Your task to perform on an android device: Go to Maps Image 0: 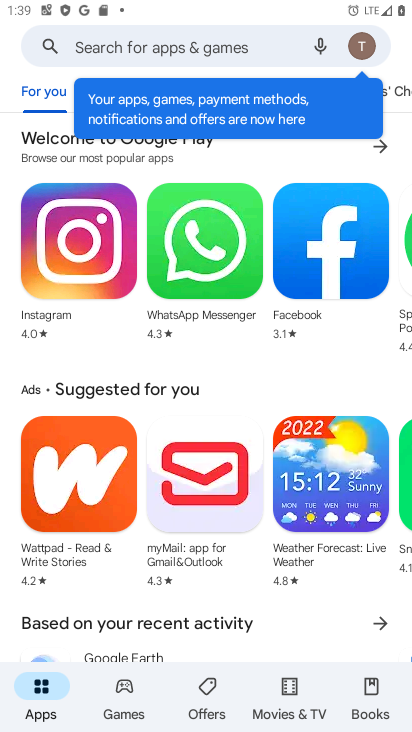
Step 0: press home button
Your task to perform on an android device: Go to Maps Image 1: 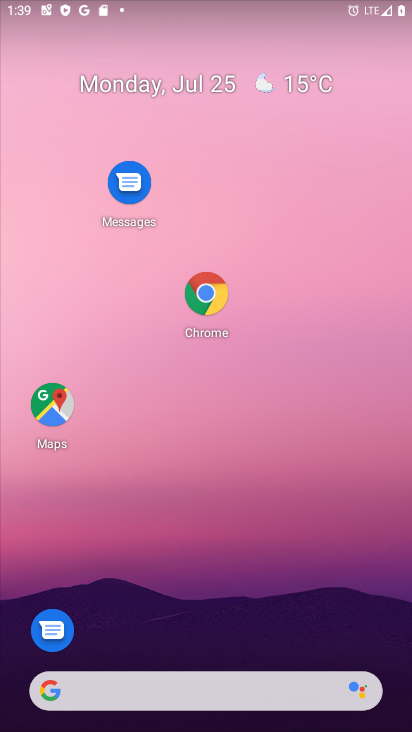
Step 1: click (44, 389)
Your task to perform on an android device: Go to Maps Image 2: 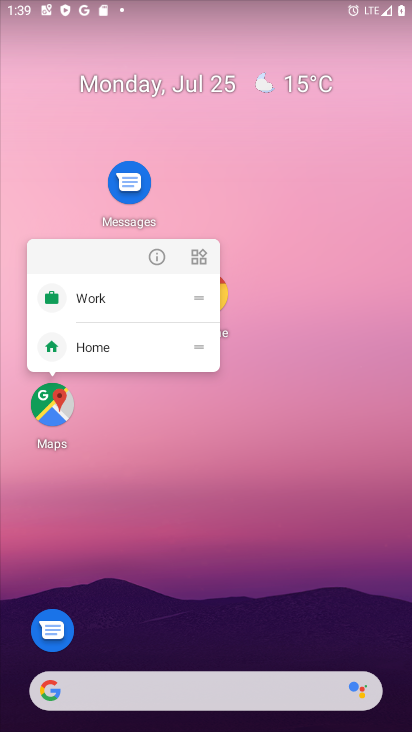
Step 2: click (42, 415)
Your task to perform on an android device: Go to Maps Image 3: 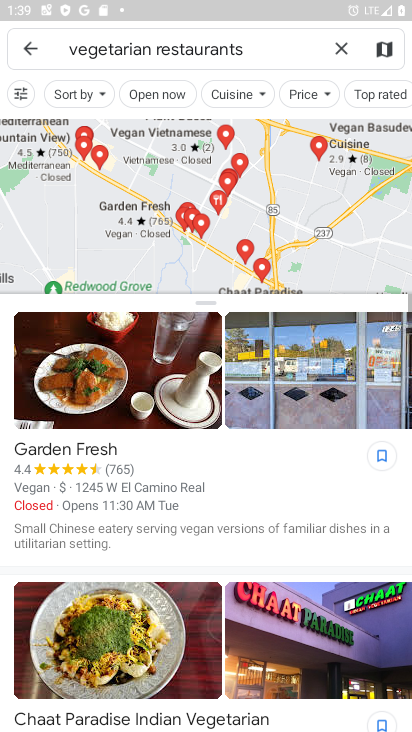
Step 3: click (35, 51)
Your task to perform on an android device: Go to Maps Image 4: 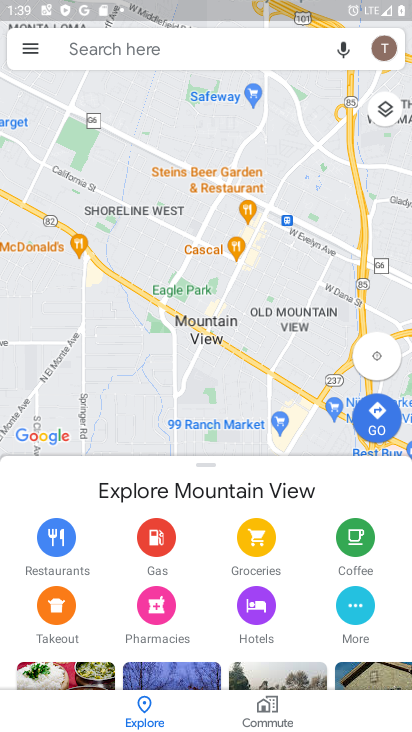
Step 4: task complete